Your task to perform on an android device: turn smart compose on in the gmail app Image 0: 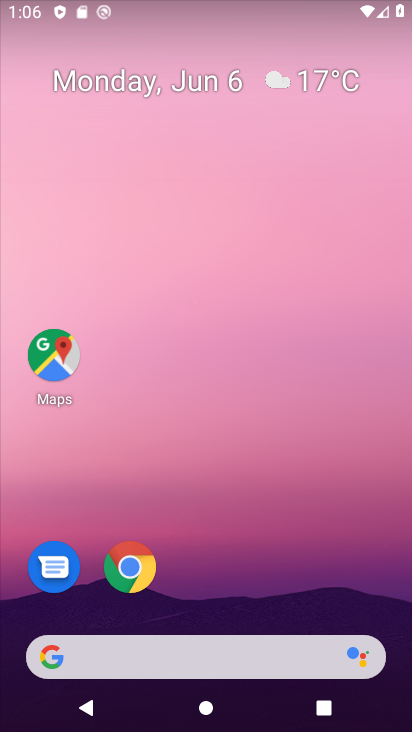
Step 0: drag from (146, 635) to (260, 76)
Your task to perform on an android device: turn smart compose on in the gmail app Image 1: 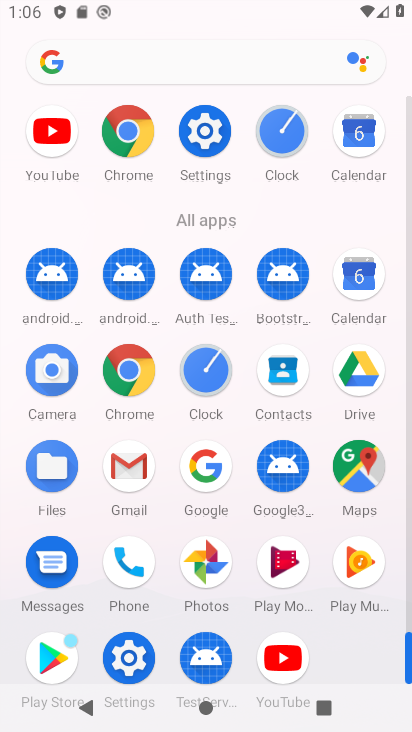
Step 1: click (131, 448)
Your task to perform on an android device: turn smart compose on in the gmail app Image 2: 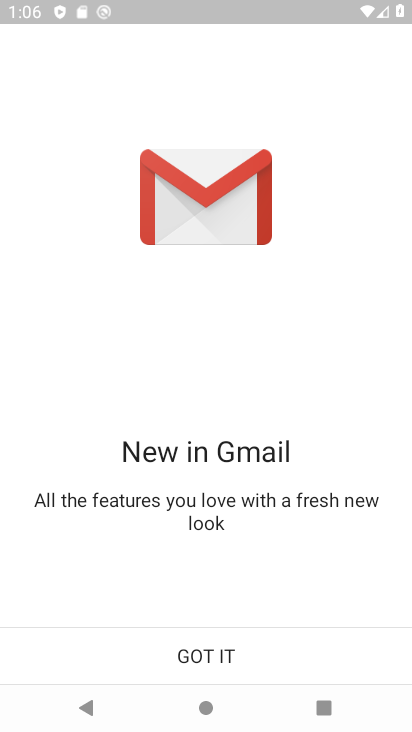
Step 2: click (276, 654)
Your task to perform on an android device: turn smart compose on in the gmail app Image 3: 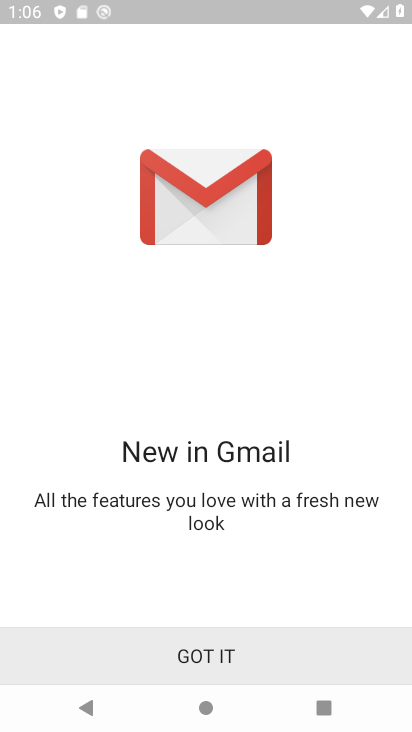
Step 3: click (277, 654)
Your task to perform on an android device: turn smart compose on in the gmail app Image 4: 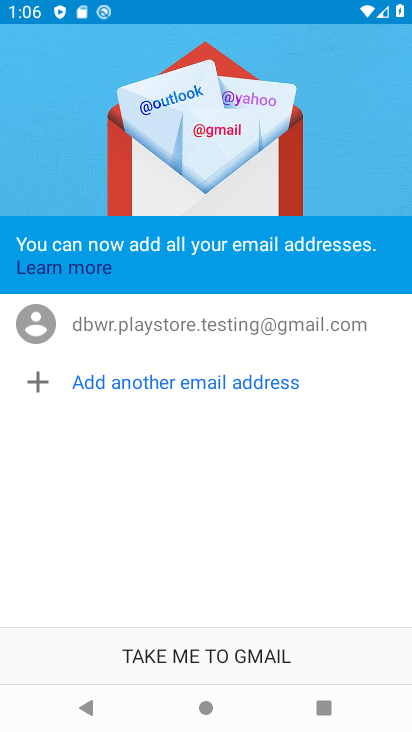
Step 4: click (277, 654)
Your task to perform on an android device: turn smart compose on in the gmail app Image 5: 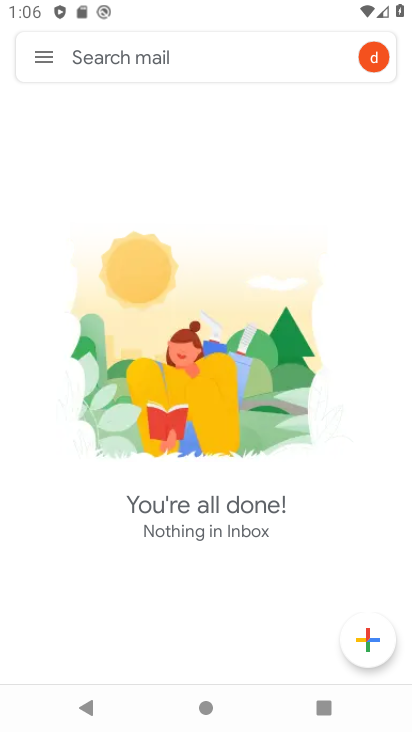
Step 5: click (44, 62)
Your task to perform on an android device: turn smart compose on in the gmail app Image 6: 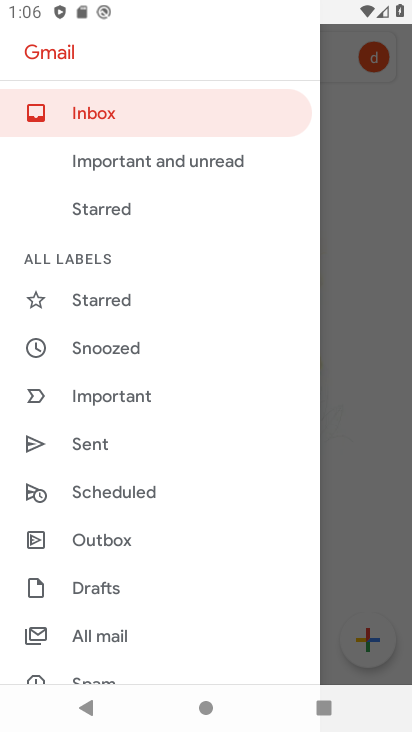
Step 6: drag from (185, 636) to (176, 191)
Your task to perform on an android device: turn smart compose on in the gmail app Image 7: 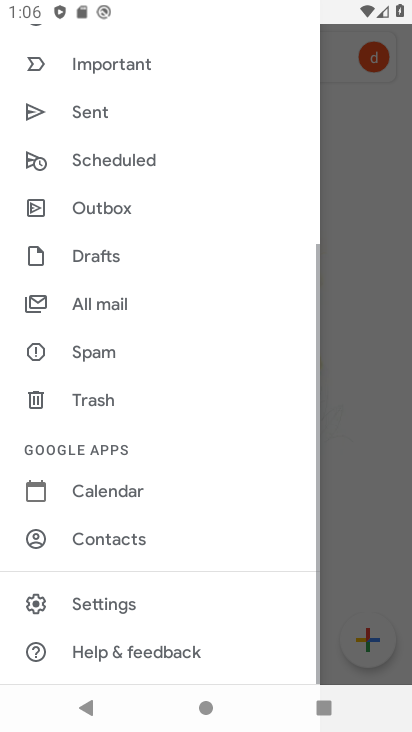
Step 7: click (169, 609)
Your task to perform on an android device: turn smart compose on in the gmail app Image 8: 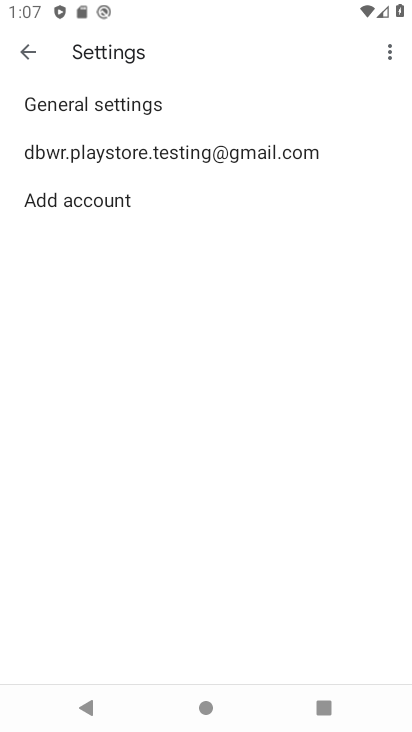
Step 8: click (128, 161)
Your task to perform on an android device: turn smart compose on in the gmail app Image 9: 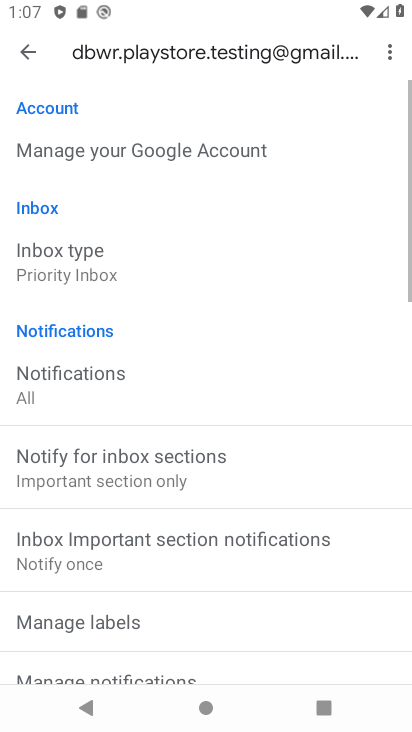
Step 9: task complete